Your task to perform on an android device: Show the shopping cart on amazon. Search for "razer blade" on amazon, select the first entry, add it to the cart, then select checkout. Image 0: 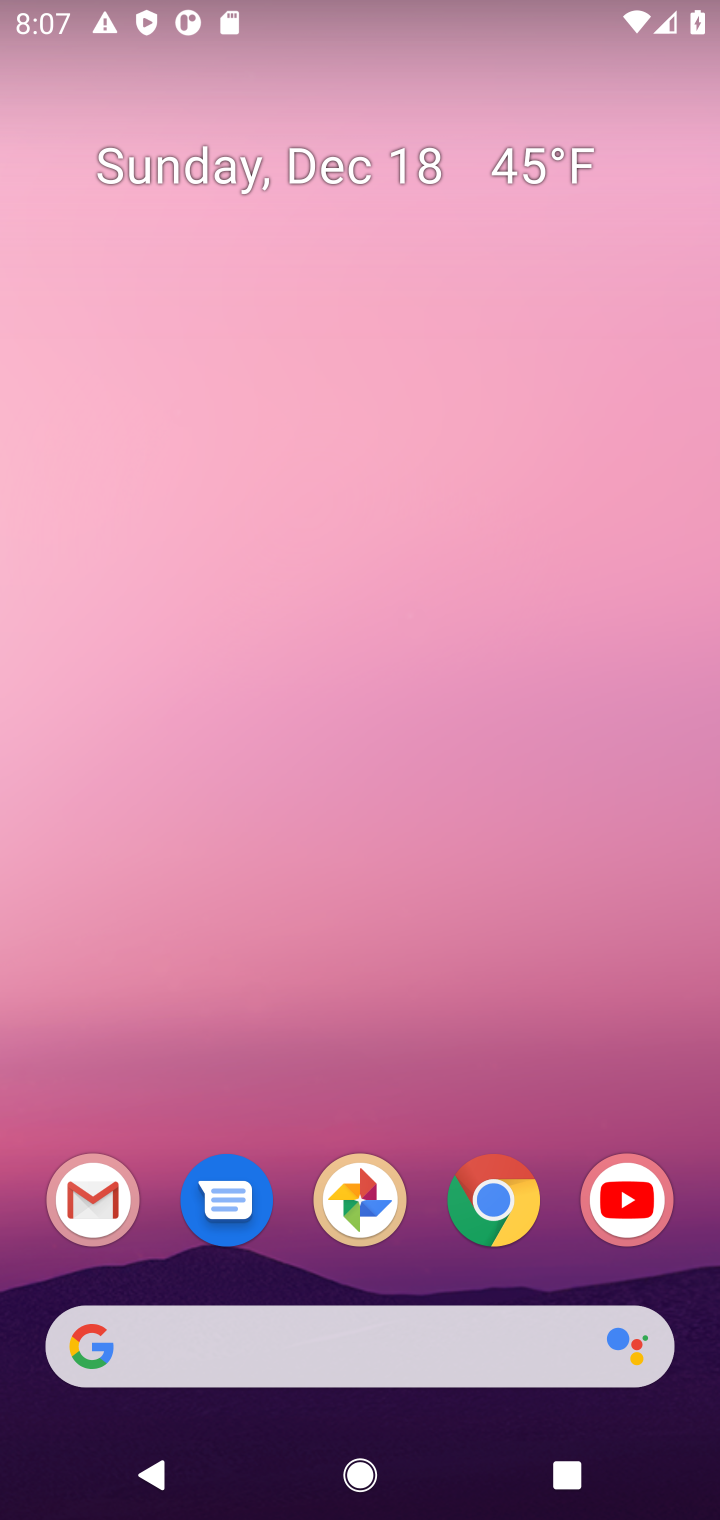
Step 0: click (483, 1206)
Your task to perform on an android device: Show the shopping cart on amazon. Search for "razer blade" on amazon, select the first entry, add it to the cart, then select checkout. Image 1: 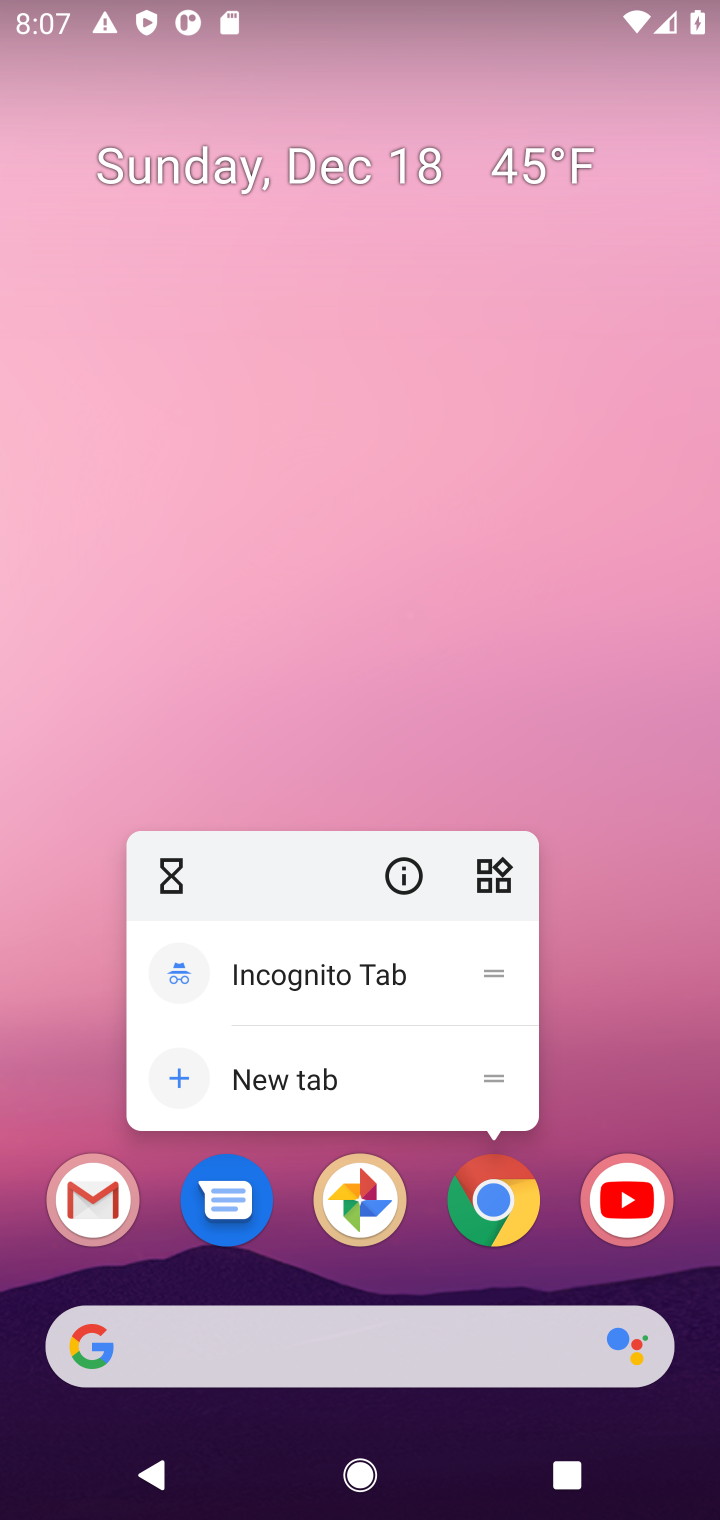
Step 1: click (483, 1206)
Your task to perform on an android device: Show the shopping cart on amazon. Search for "razer blade" on amazon, select the first entry, add it to the cart, then select checkout. Image 2: 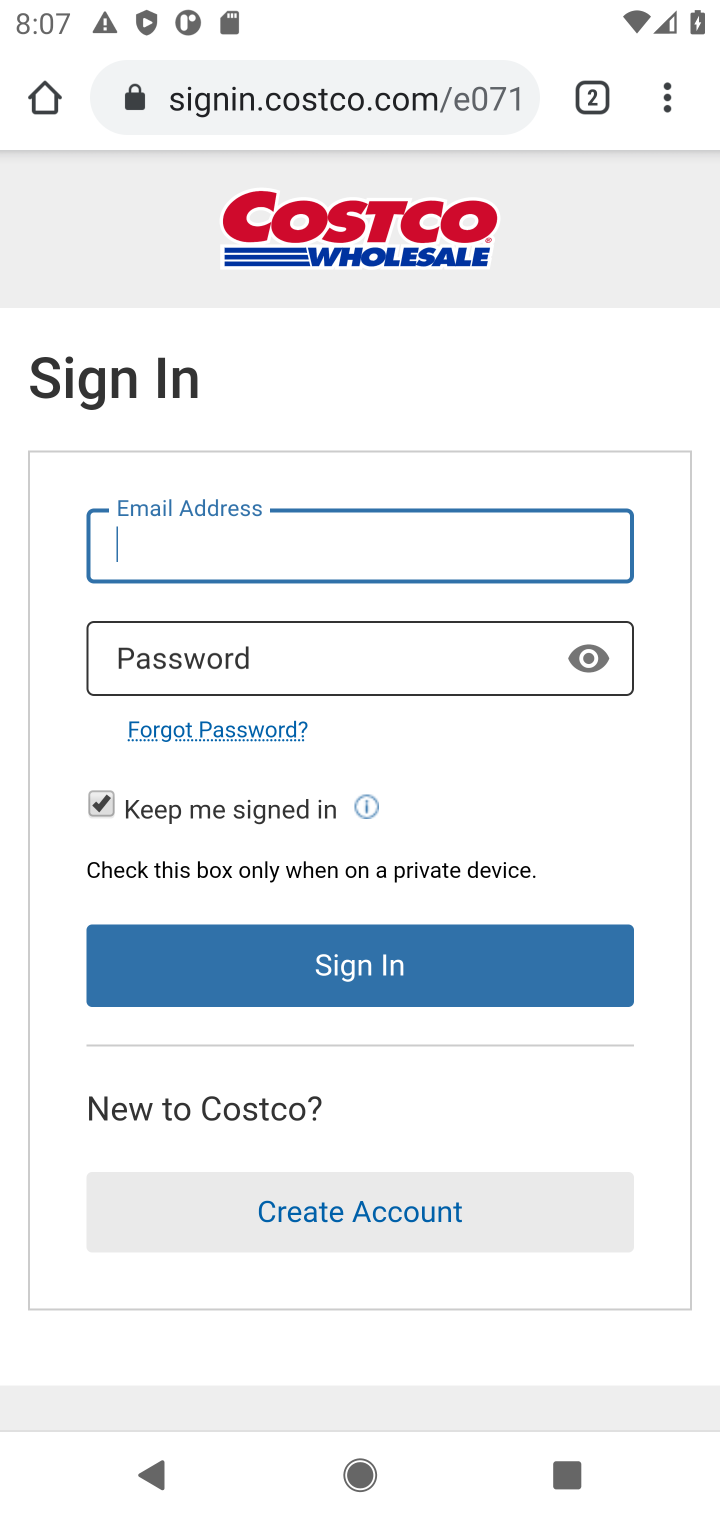
Step 2: click (223, 114)
Your task to perform on an android device: Show the shopping cart on amazon. Search for "razer blade" on amazon, select the first entry, add it to the cart, then select checkout. Image 3: 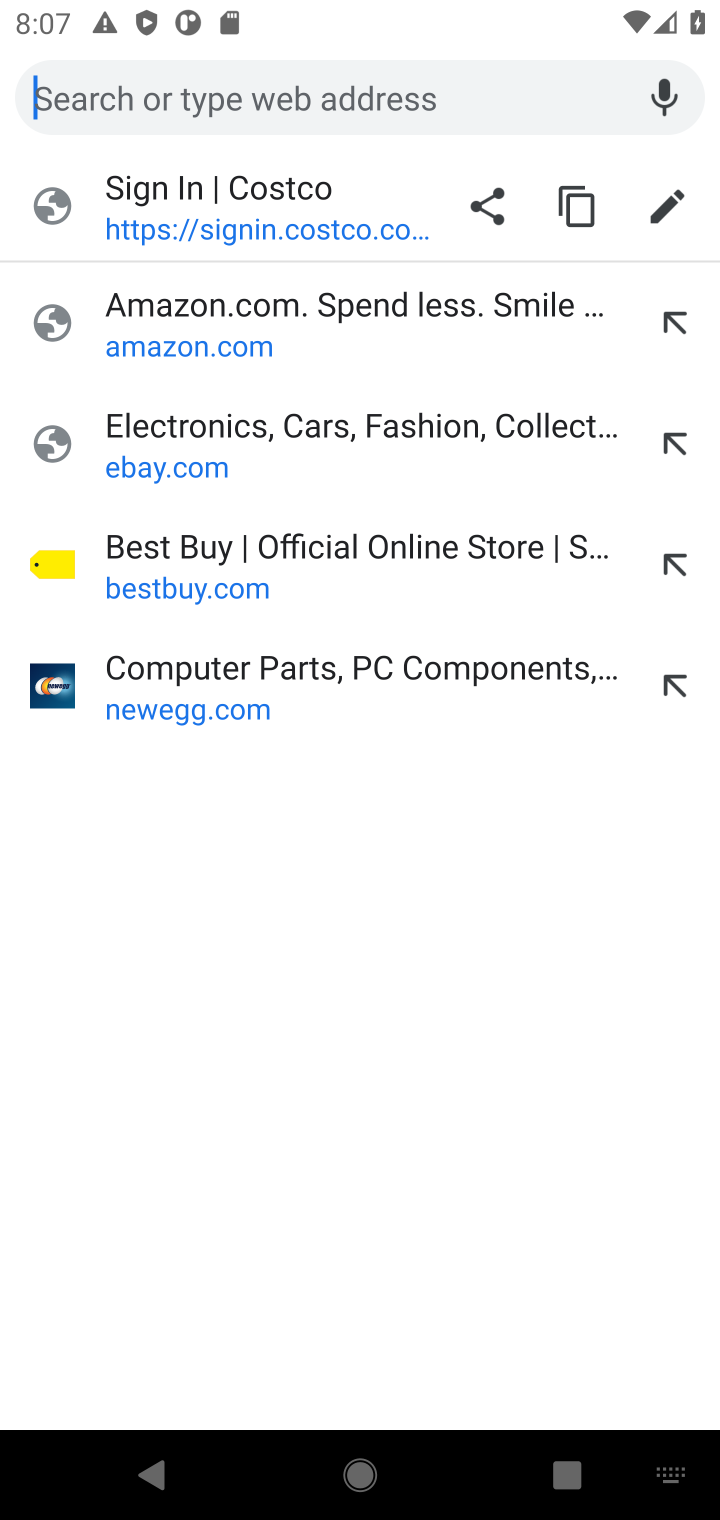
Step 3: click (169, 320)
Your task to perform on an android device: Show the shopping cart on amazon. Search for "razer blade" on amazon, select the first entry, add it to the cart, then select checkout. Image 4: 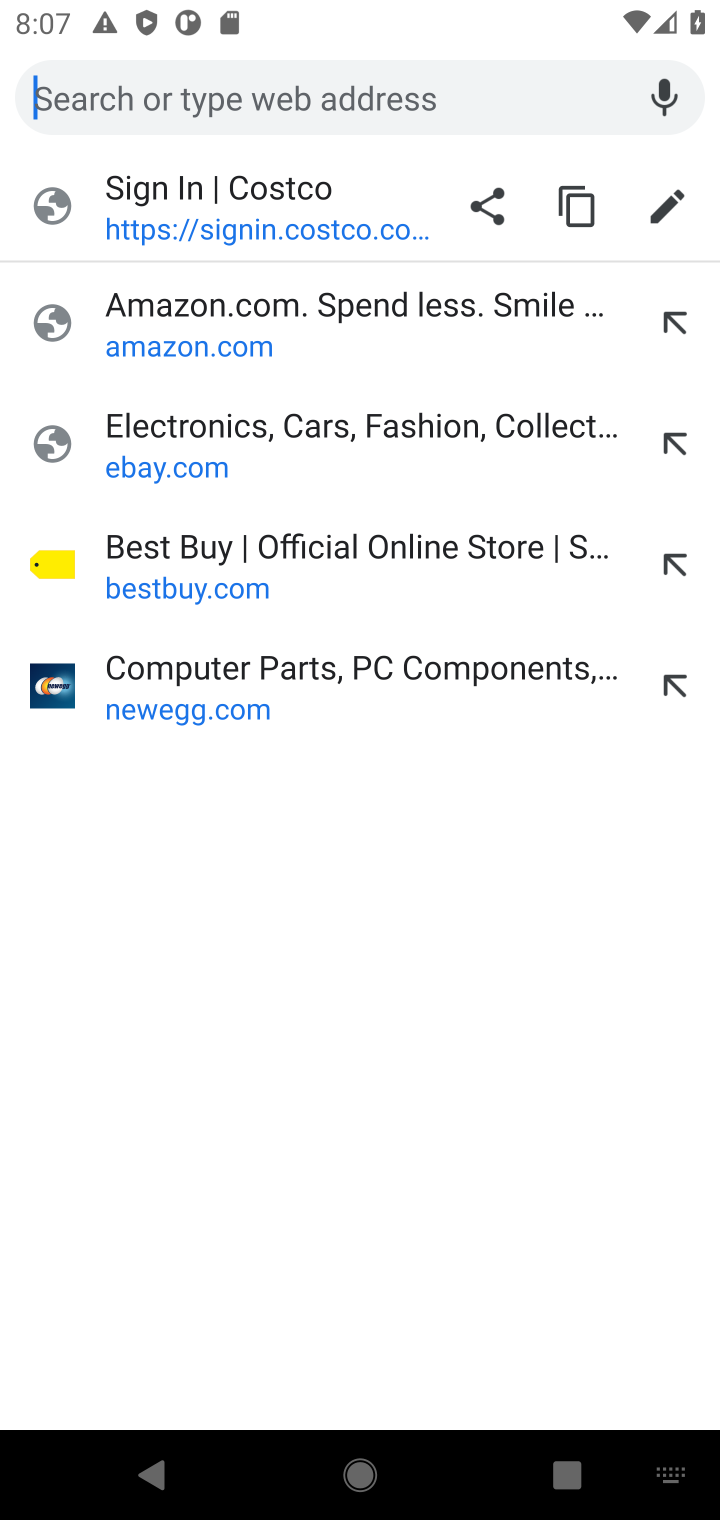
Step 4: click (169, 320)
Your task to perform on an android device: Show the shopping cart on amazon. Search for "razer blade" on amazon, select the first entry, add it to the cart, then select checkout. Image 5: 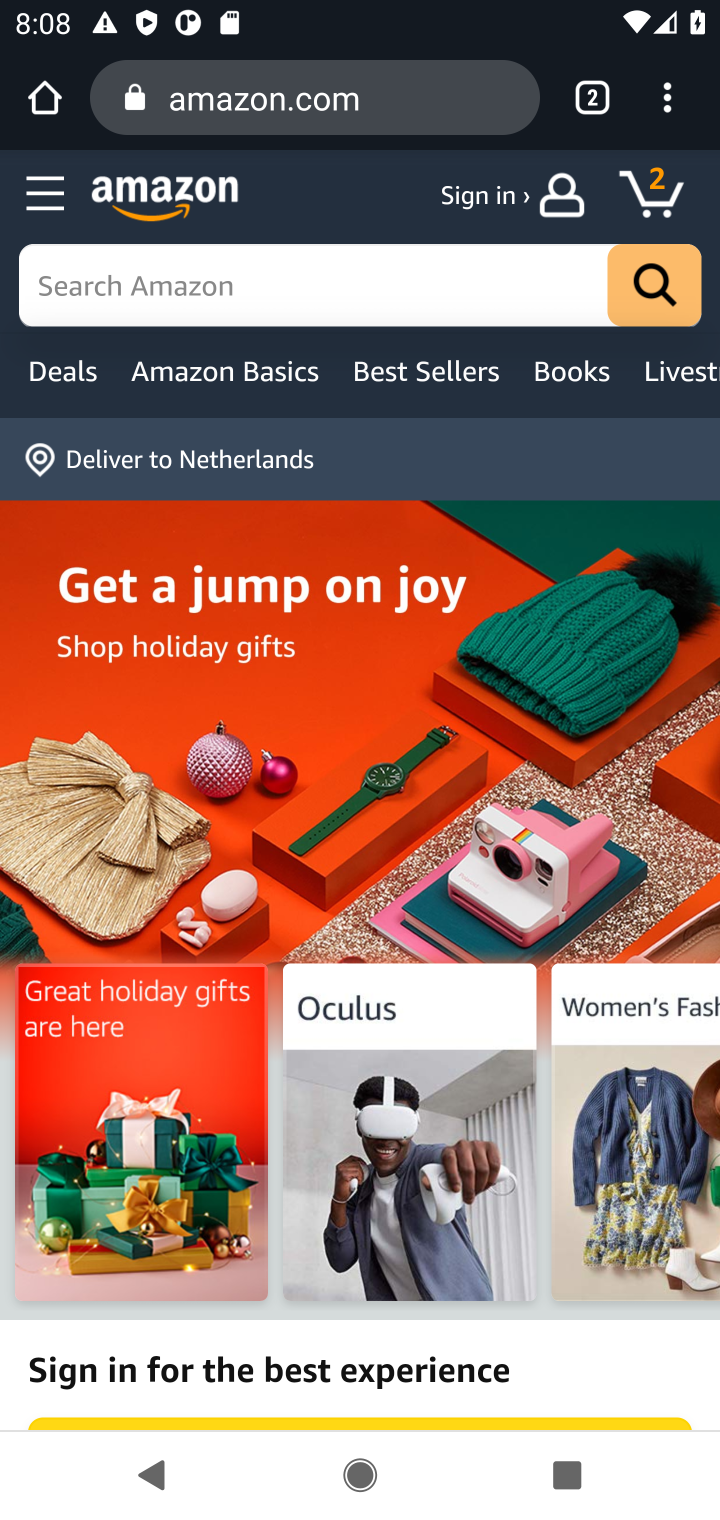
Step 5: click (659, 192)
Your task to perform on an android device: Show the shopping cart on amazon. Search for "razer blade" on amazon, select the first entry, add it to the cart, then select checkout. Image 6: 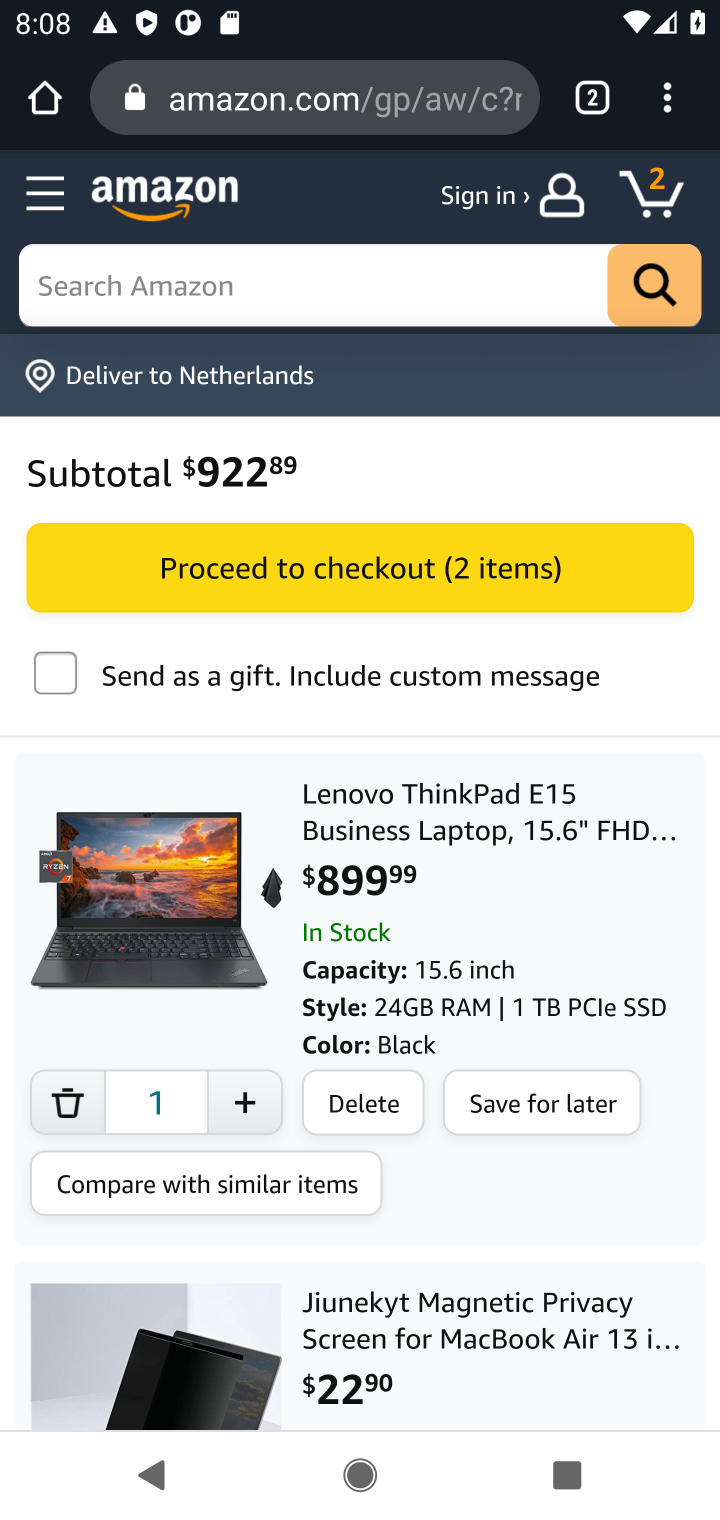
Step 6: click (163, 281)
Your task to perform on an android device: Show the shopping cart on amazon. Search for "razer blade" on amazon, select the first entry, add it to the cart, then select checkout. Image 7: 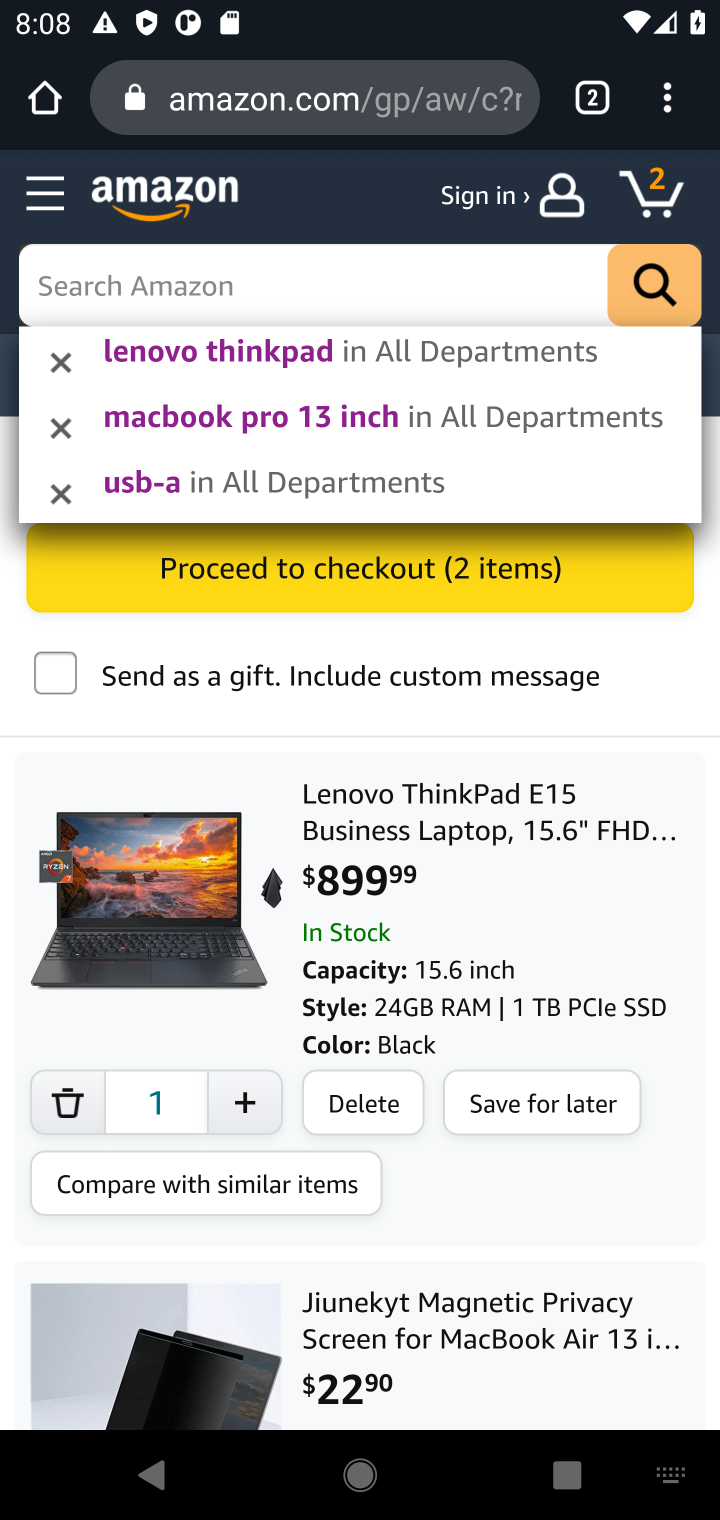
Step 7: type "razer blade"
Your task to perform on an android device: Show the shopping cart on amazon. Search for "razer blade" on amazon, select the first entry, add it to the cart, then select checkout. Image 8: 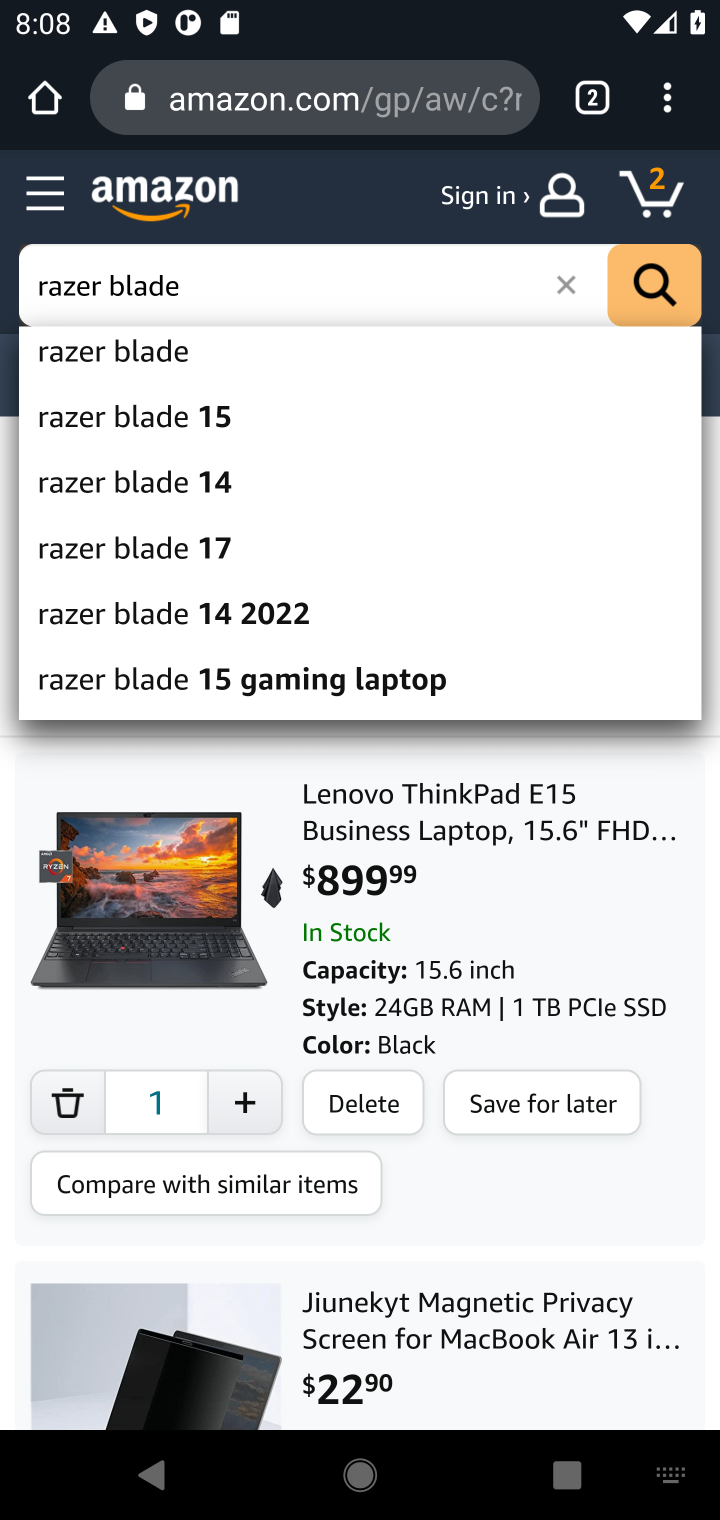
Step 8: click (130, 351)
Your task to perform on an android device: Show the shopping cart on amazon. Search for "razer blade" on amazon, select the first entry, add it to the cart, then select checkout. Image 9: 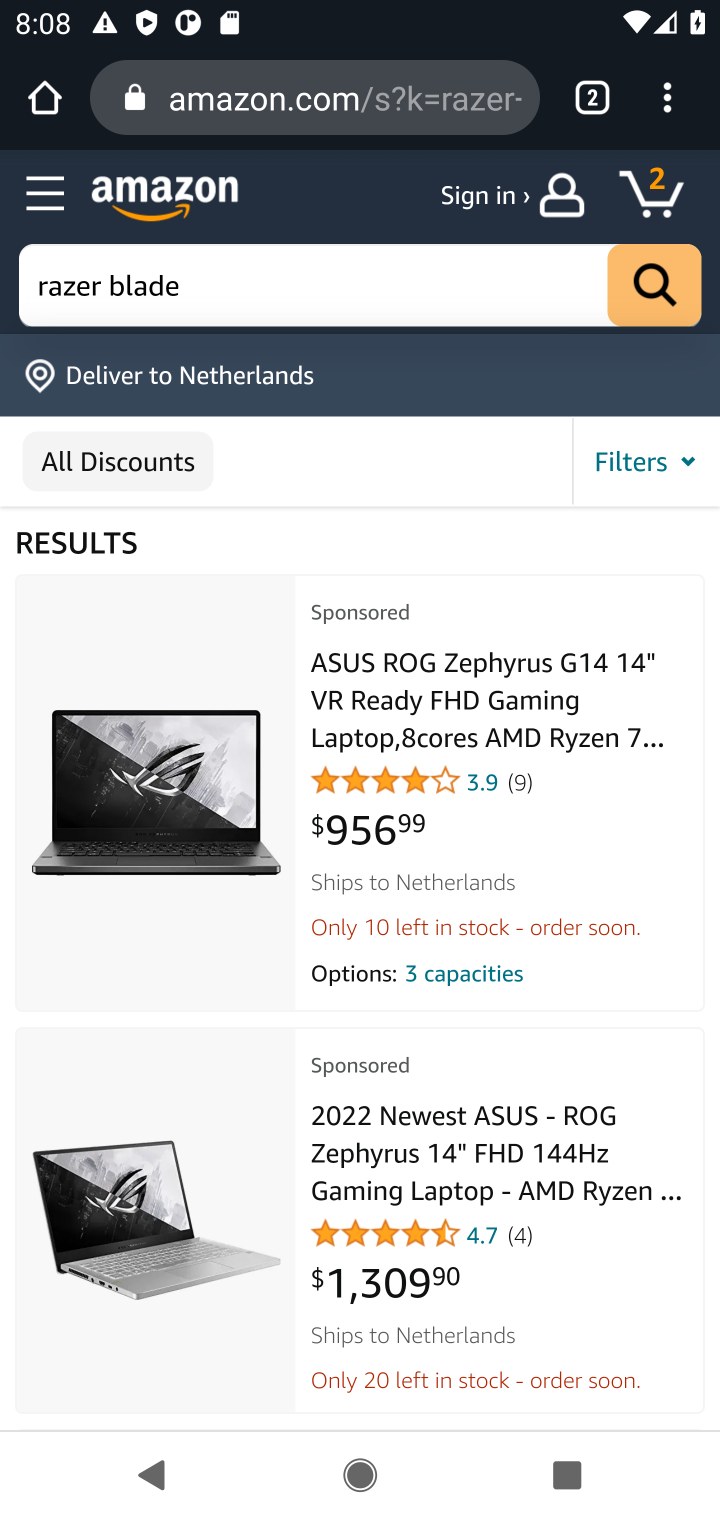
Step 9: task complete